Your task to perform on an android device: Set the phone to "Do not disturb". Image 0: 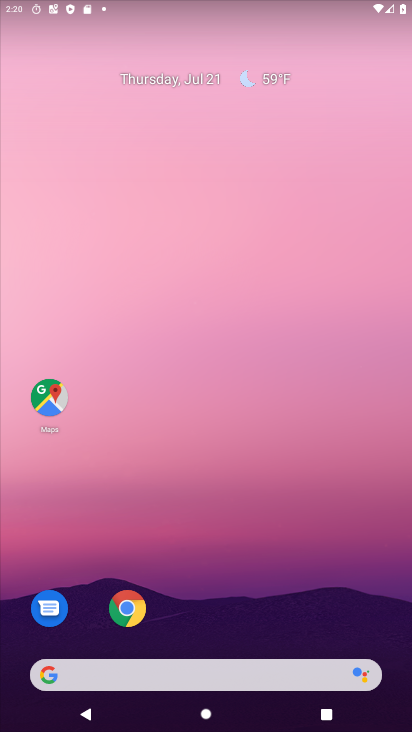
Step 0: drag from (289, 626) to (321, 157)
Your task to perform on an android device: Set the phone to "Do not disturb". Image 1: 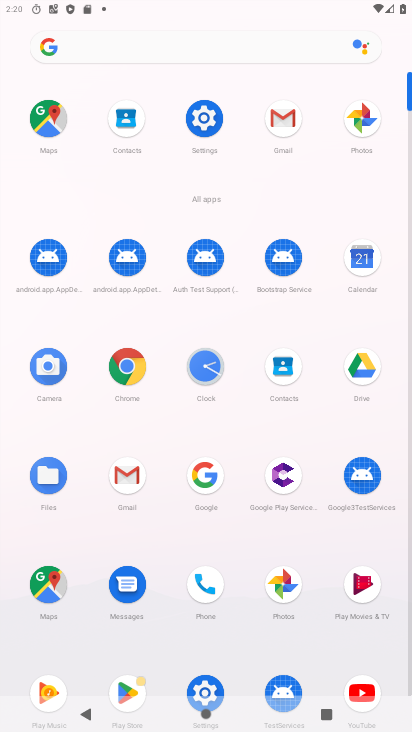
Step 1: click (211, 129)
Your task to perform on an android device: Set the phone to "Do not disturb". Image 2: 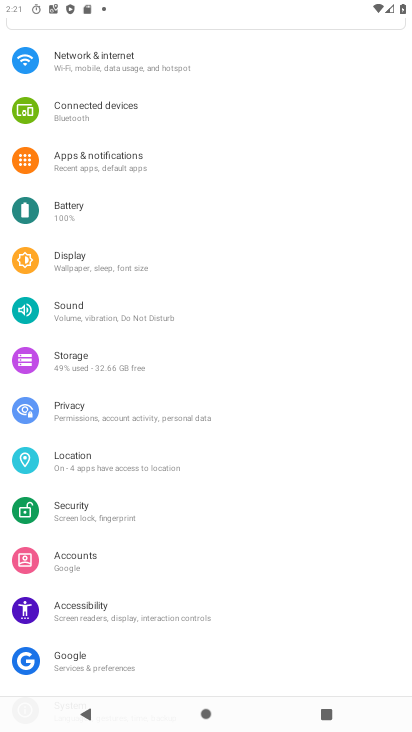
Step 2: click (111, 304)
Your task to perform on an android device: Set the phone to "Do not disturb". Image 3: 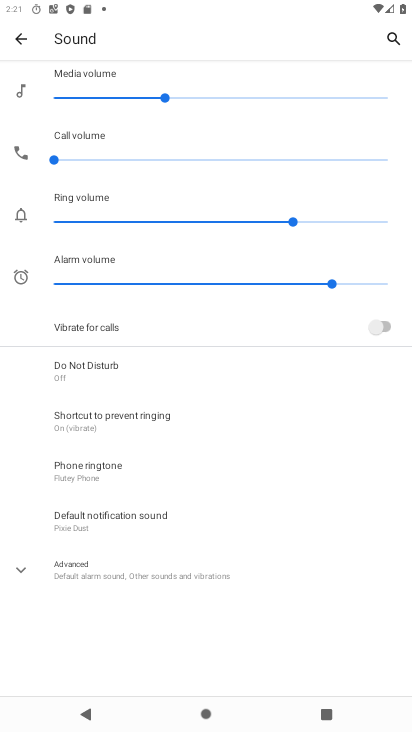
Step 3: click (181, 367)
Your task to perform on an android device: Set the phone to "Do not disturb". Image 4: 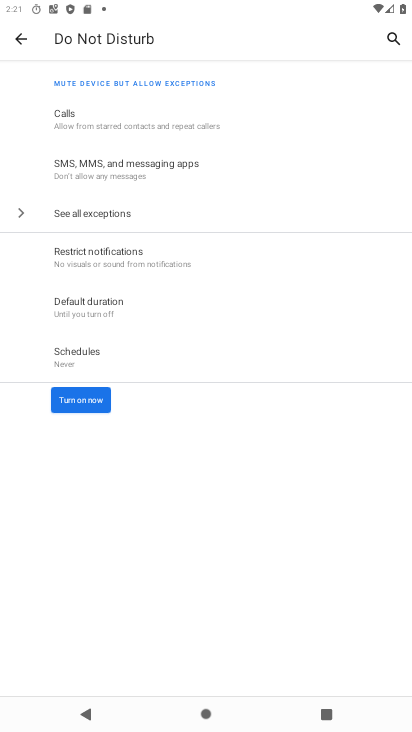
Step 4: click (74, 387)
Your task to perform on an android device: Set the phone to "Do not disturb". Image 5: 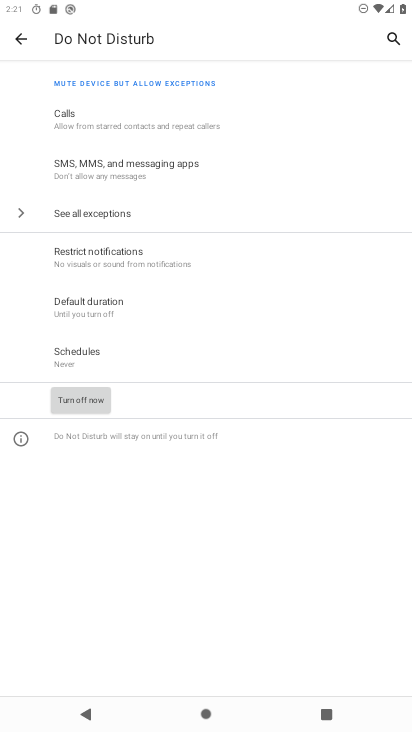
Step 5: task complete